Your task to perform on an android device: turn off notifications in google photos Image 0: 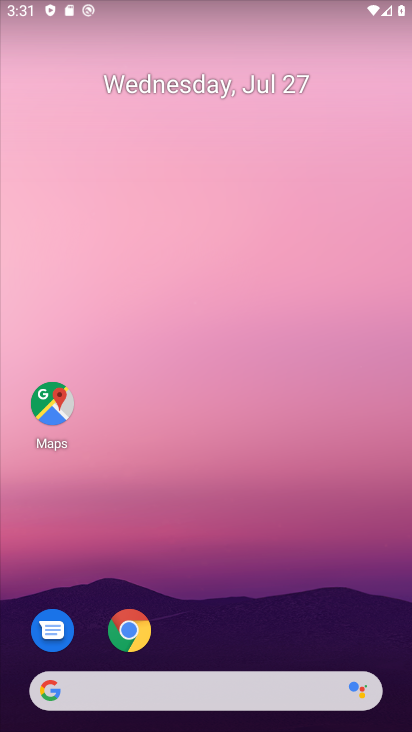
Step 0: drag from (213, 649) to (242, 172)
Your task to perform on an android device: turn off notifications in google photos Image 1: 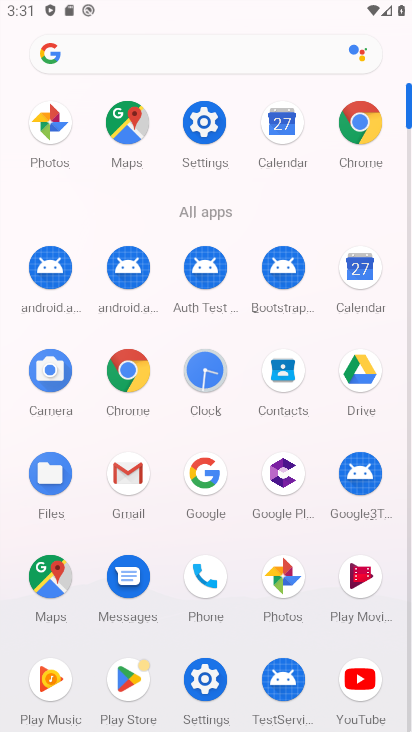
Step 1: click (279, 568)
Your task to perform on an android device: turn off notifications in google photos Image 2: 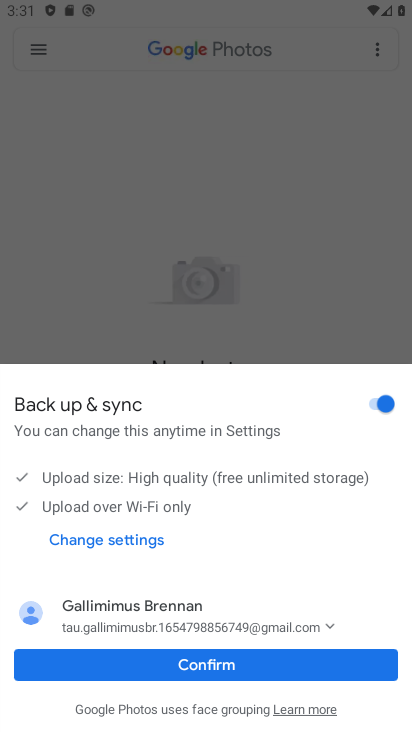
Step 2: click (213, 664)
Your task to perform on an android device: turn off notifications in google photos Image 3: 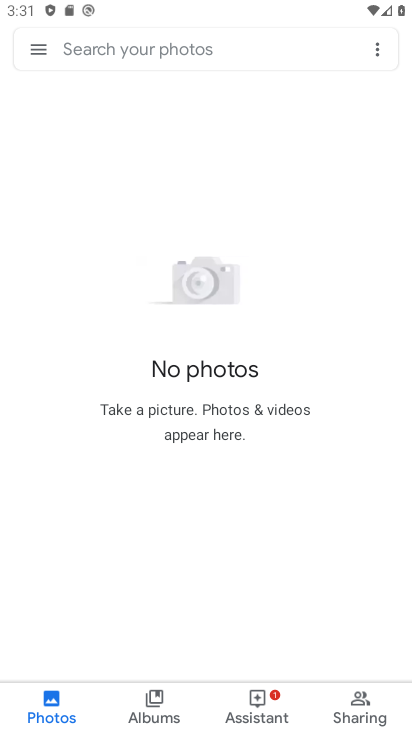
Step 3: click (35, 43)
Your task to perform on an android device: turn off notifications in google photos Image 4: 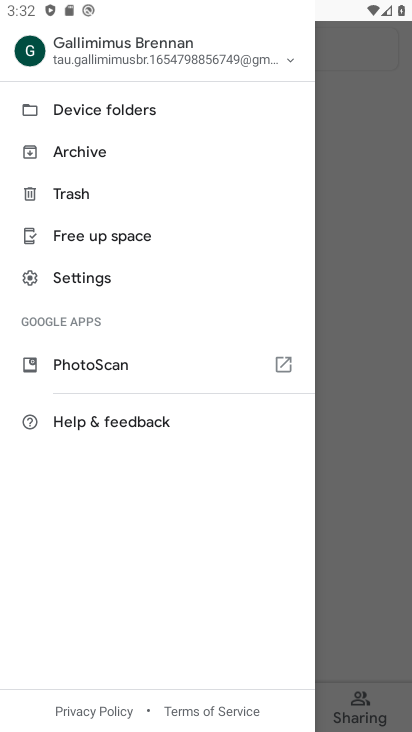
Step 4: click (95, 267)
Your task to perform on an android device: turn off notifications in google photos Image 5: 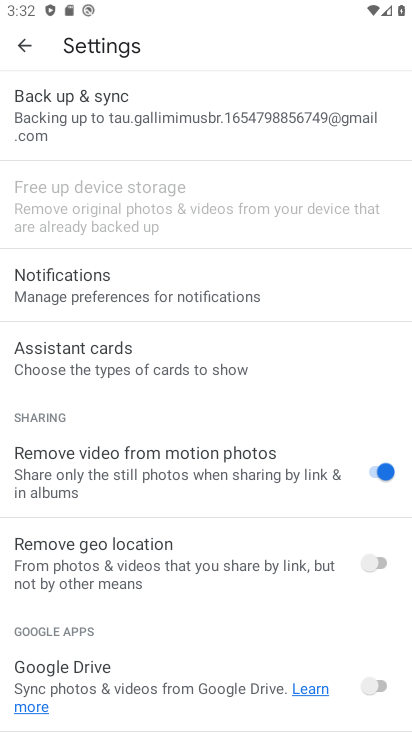
Step 5: click (100, 276)
Your task to perform on an android device: turn off notifications in google photos Image 6: 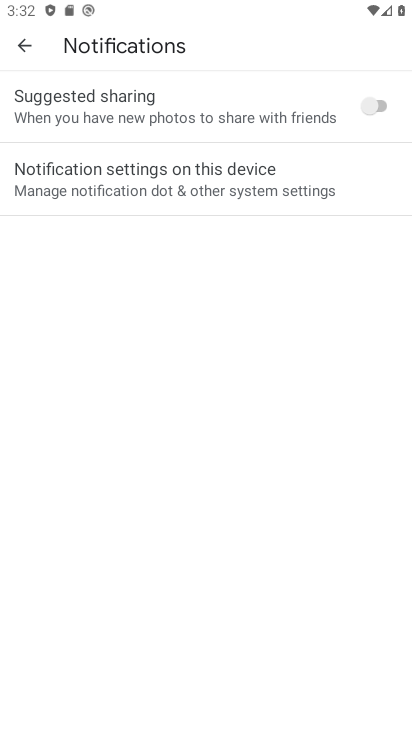
Step 6: click (211, 169)
Your task to perform on an android device: turn off notifications in google photos Image 7: 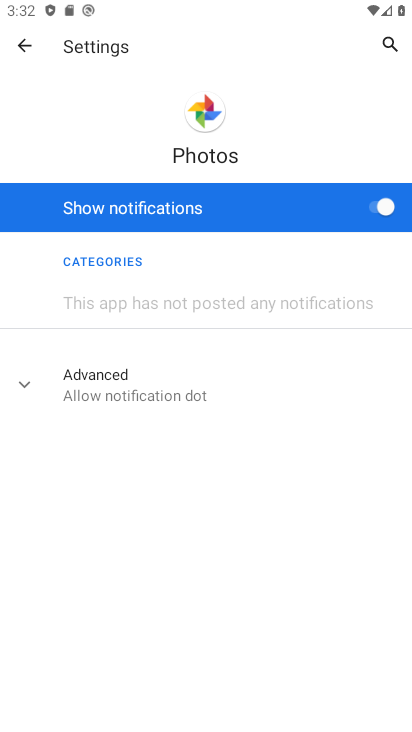
Step 7: click (383, 205)
Your task to perform on an android device: turn off notifications in google photos Image 8: 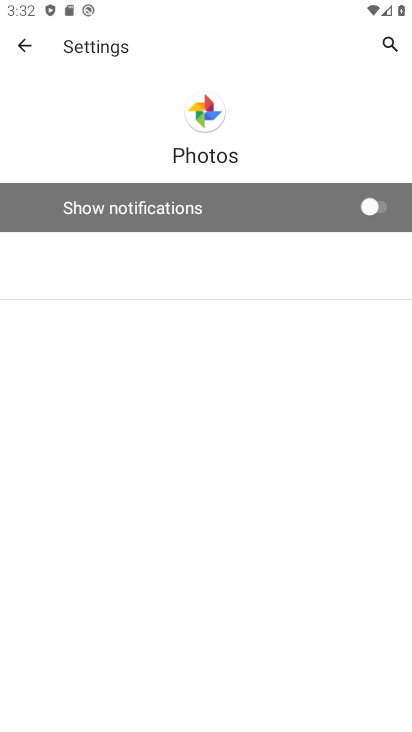
Step 8: task complete